Your task to perform on an android device: empty trash in google photos Image 0: 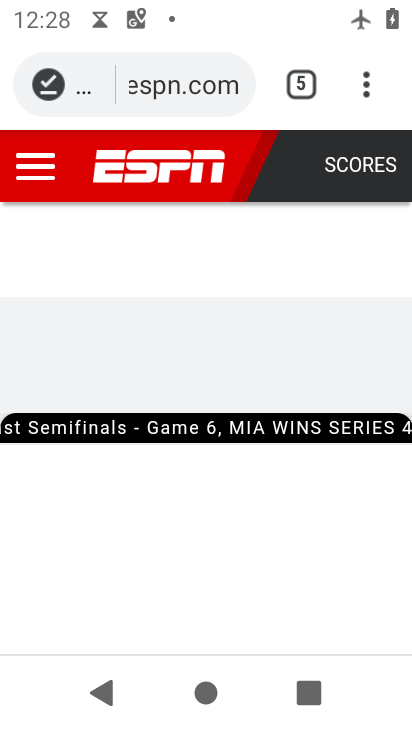
Step 0: press home button
Your task to perform on an android device: empty trash in google photos Image 1: 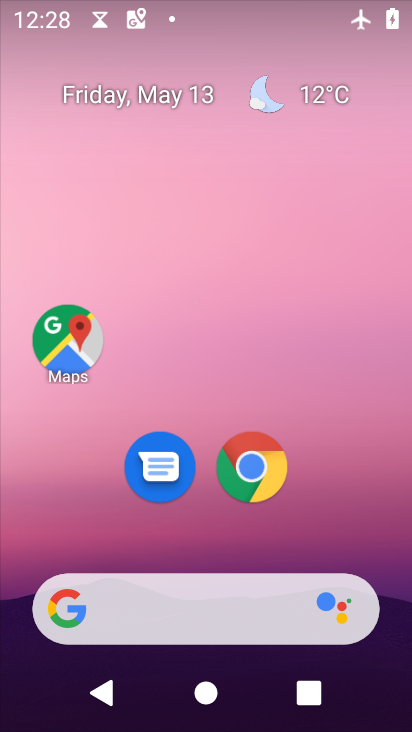
Step 1: drag from (351, 473) to (248, 65)
Your task to perform on an android device: empty trash in google photos Image 2: 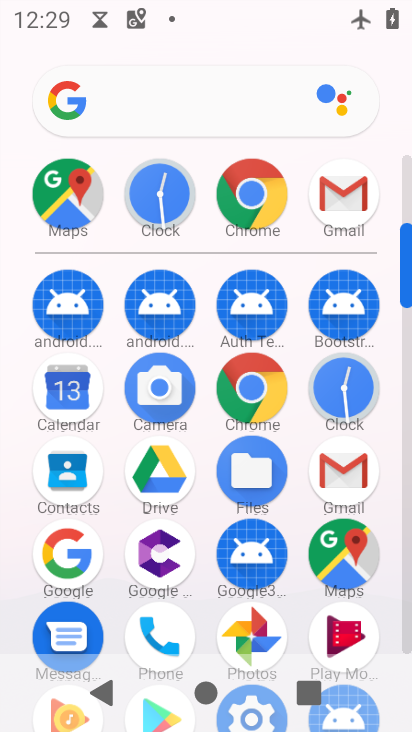
Step 2: click (251, 644)
Your task to perform on an android device: empty trash in google photos Image 3: 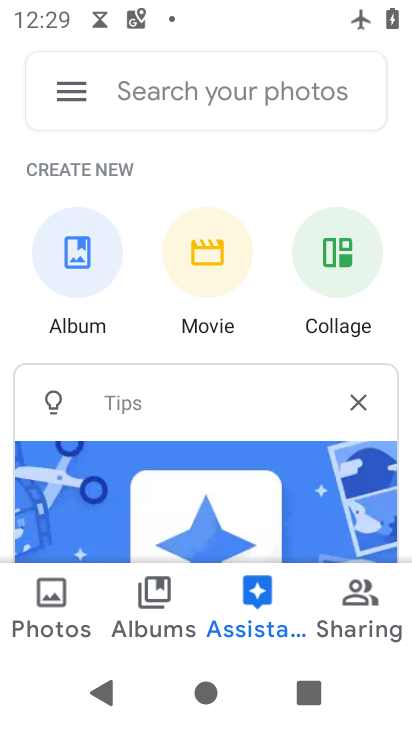
Step 3: click (77, 96)
Your task to perform on an android device: empty trash in google photos Image 4: 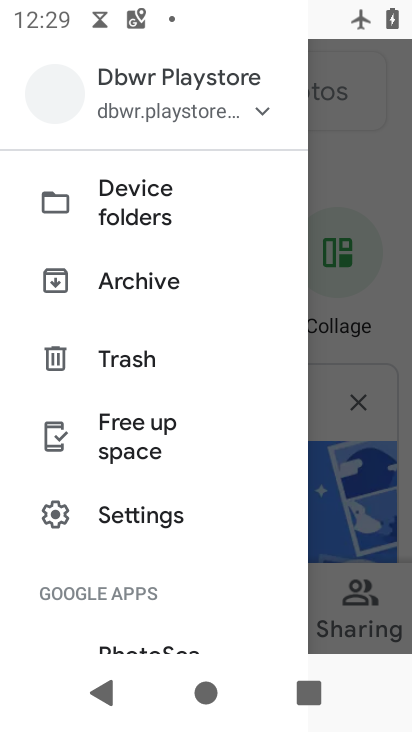
Step 4: click (112, 374)
Your task to perform on an android device: empty trash in google photos Image 5: 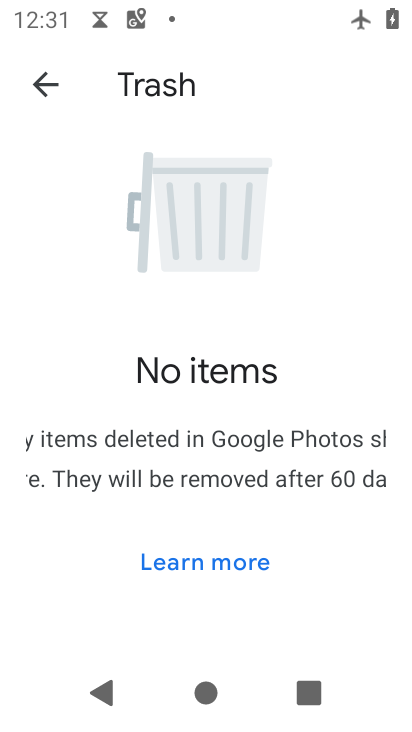
Step 5: task complete